Your task to perform on an android device: find snoozed emails in the gmail app Image 0: 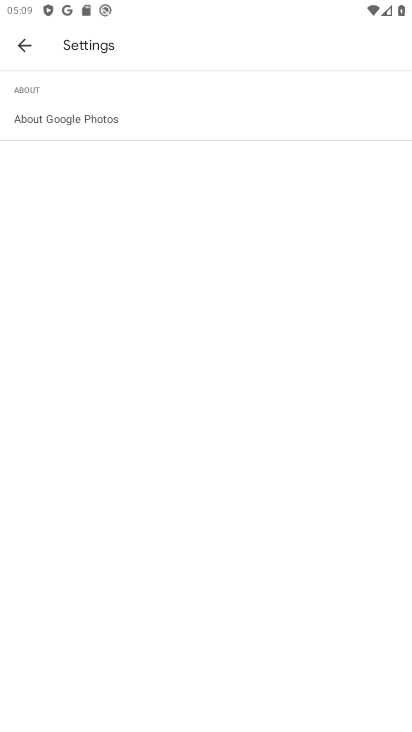
Step 0: press home button
Your task to perform on an android device: find snoozed emails in the gmail app Image 1: 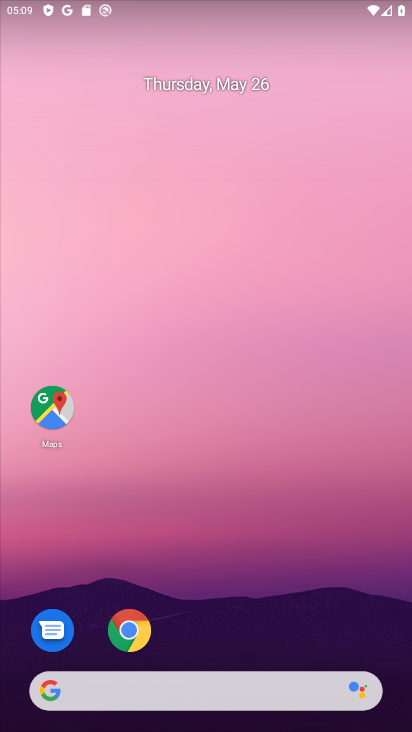
Step 1: drag from (181, 664) to (278, 199)
Your task to perform on an android device: find snoozed emails in the gmail app Image 2: 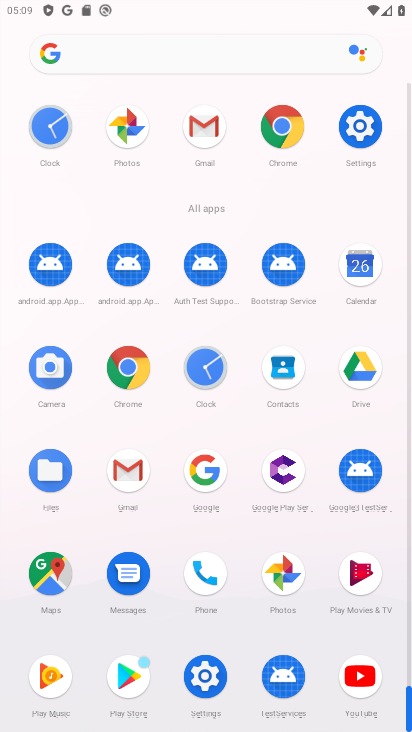
Step 2: click (129, 457)
Your task to perform on an android device: find snoozed emails in the gmail app Image 3: 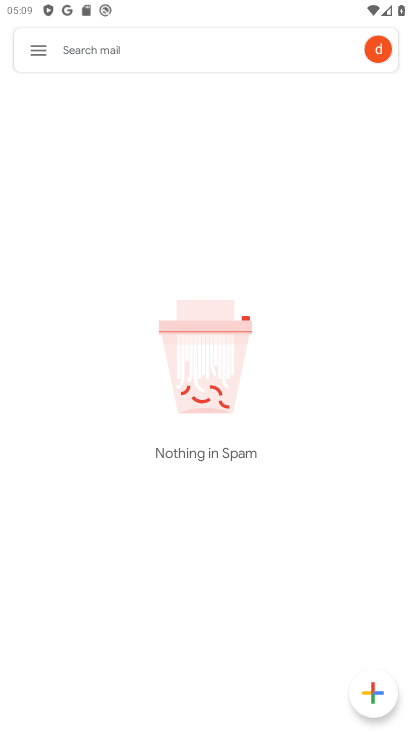
Step 3: click (47, 57)
Your task to perform on an android device: find snoozed emails in the gmail app Image 4: 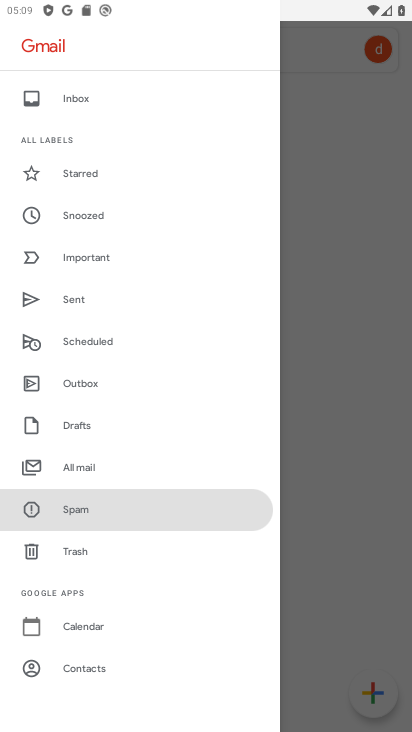
Step 4: click (109, 222)
Your task to perform on an android device: find snoozed emails in the gmail app Image 5: 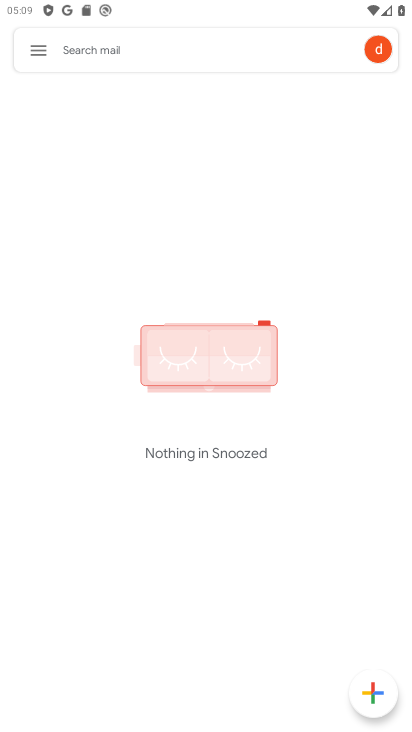
Step 5: task complete